Your task to perform on an android device: add a contact Image 0: 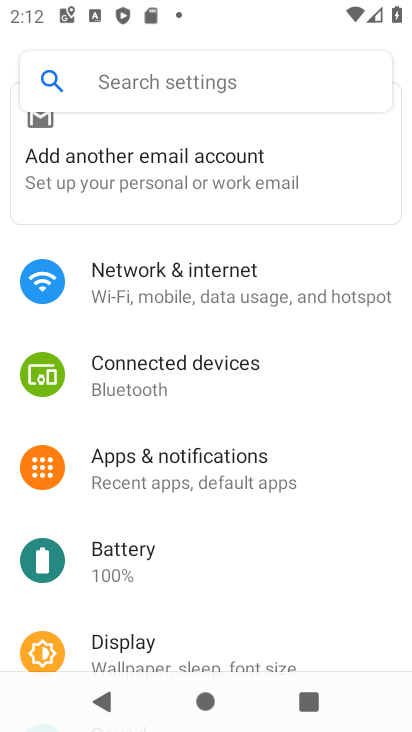
Step 0: press home button
Your task to perform on an android device: add a contact Image 1: 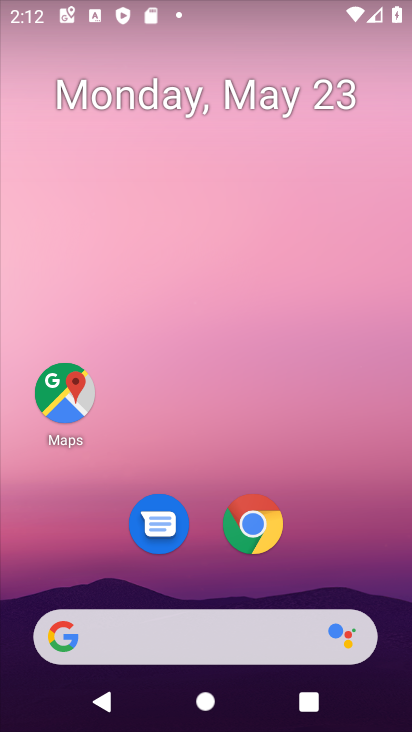
Step 1: drag from (195, 471) to (245, 1)
Your task to perform on an android device: add a contact Image 2: 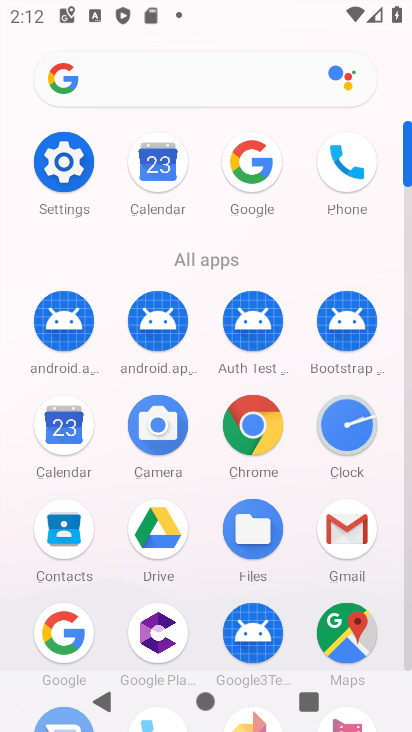
Step 2: click (79, 531)
Your task to perform on an android device: add a contact Image 3: 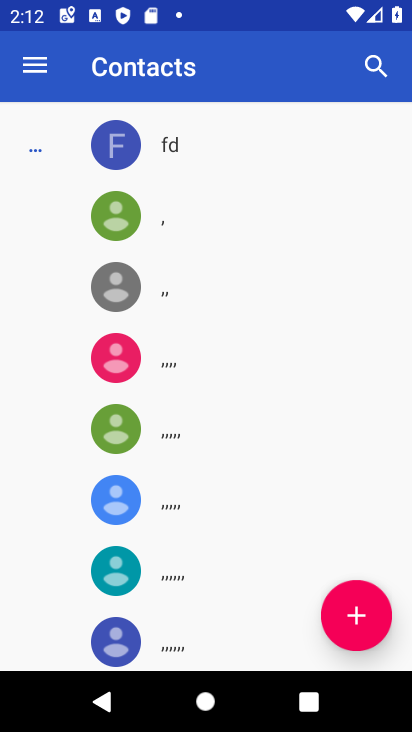
Step 3: click (369, 621)
Your task to perform on an android device: add a contact Image 4: 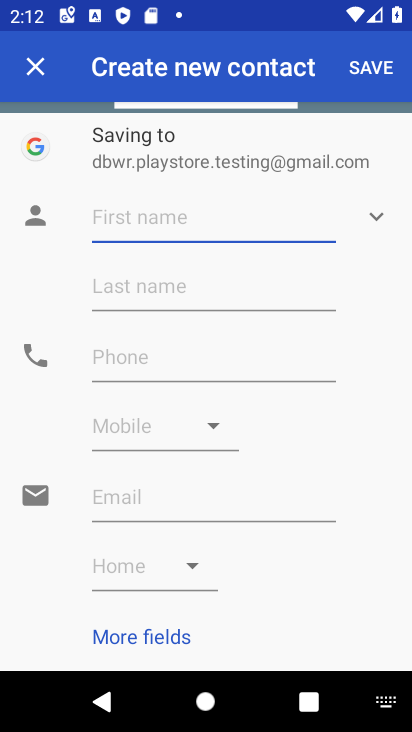
Step 4: type "Vishnudevaya"
Your task to perform on an android device: add a contact Image 5: 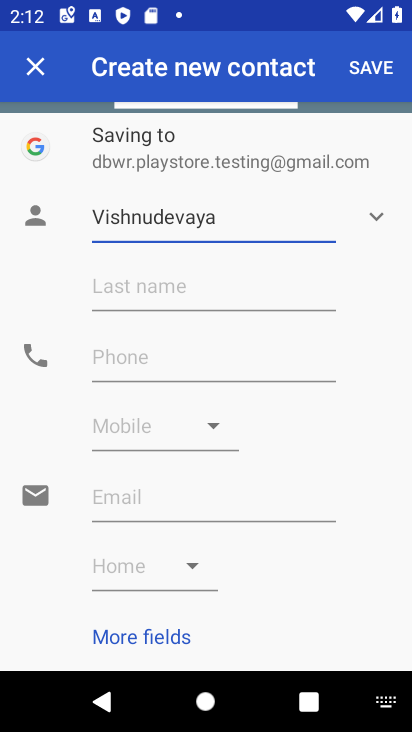
Step 5: click (219, 372)
Your task to perform on an android device: add a contact Image 6: 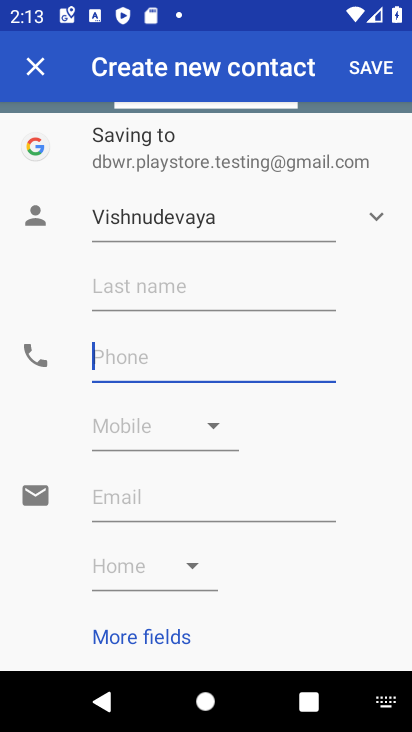
Step 6: type "011223445566"
Your task to perform on an android device: add a contact Image 7: 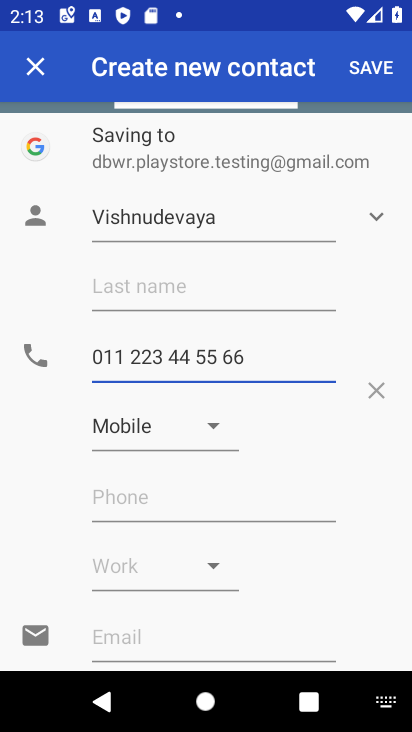
Step 7: click (377, 67)
Your task to perform on an android device: add a contact Image 8: 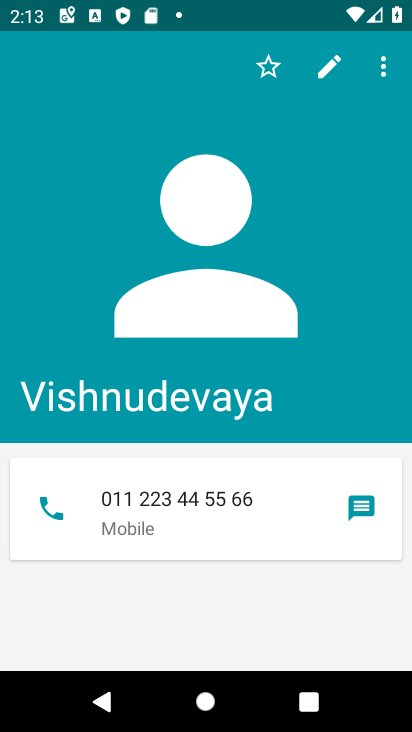
Step 8: task complete